Your task to perform on an android device: check battery use Image 0: 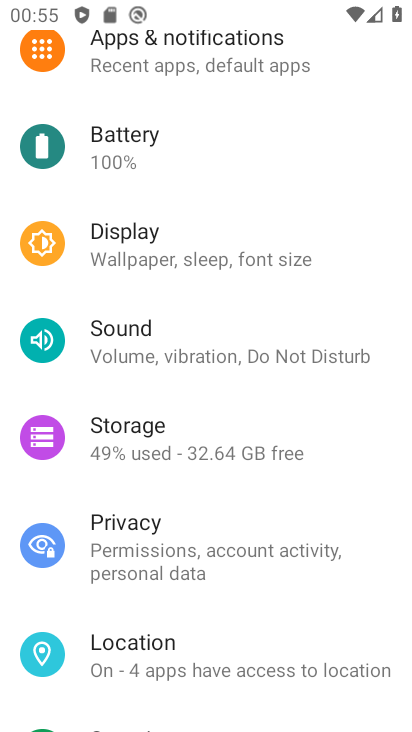
Step 0: click (186, 141)
Your task to perform on an android device: check battery use Image 1: 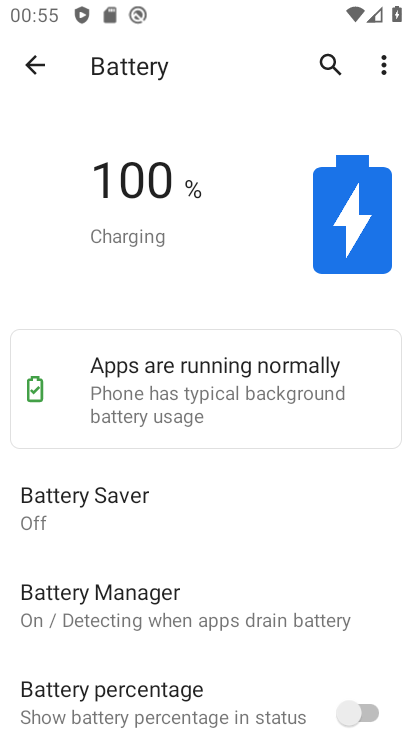
Step 1: click (385, 61)
Your task to perform on an android device: check battery use Image 2: 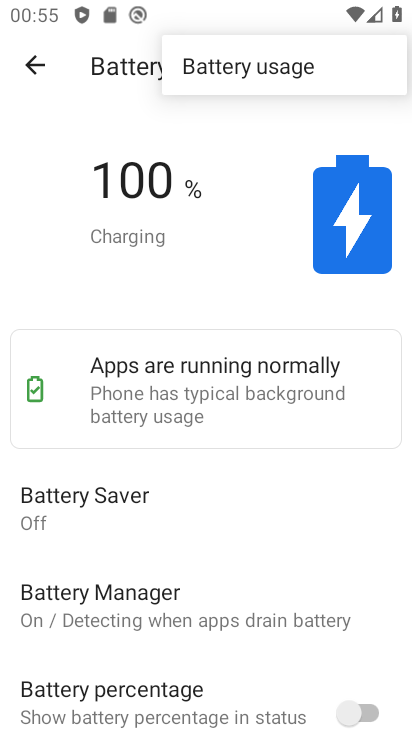
Step 2: click (345, 74)
Your task to perform on an android device: check battery use Image 3: 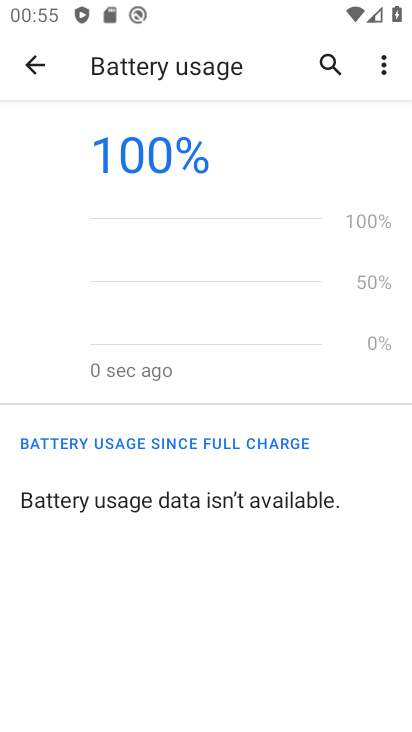
Step 3: task complete